Your task to perform on an android device: See recent photos Image 0: 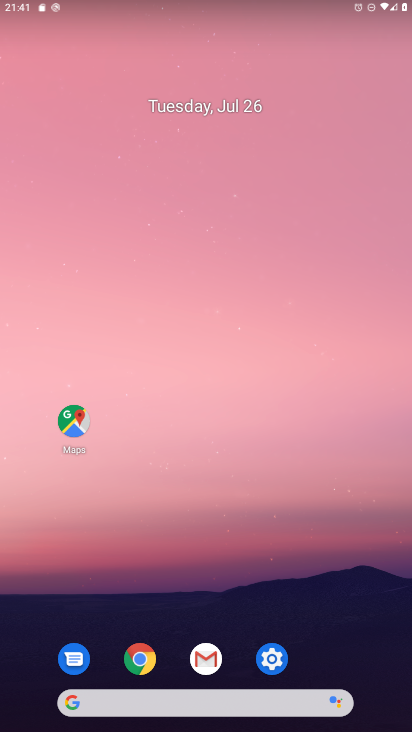
Step 0: drag from (254, 715) to (314, 279)
Your task to perform on an android device: See recent photos Image 1: 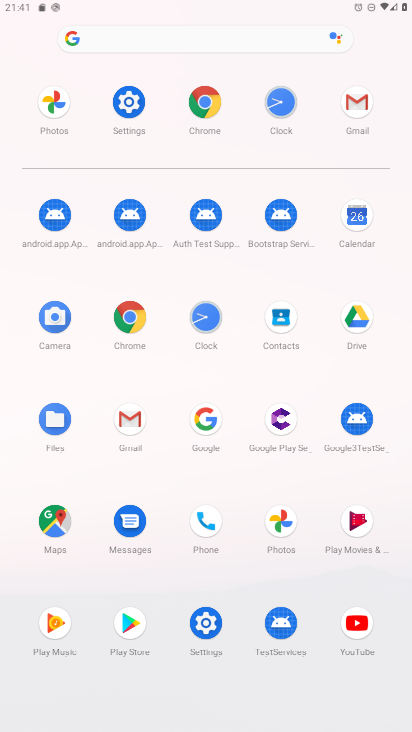
Step 1: click (280, 525)
Your task to perform on an android device: See recent photos Image 2: 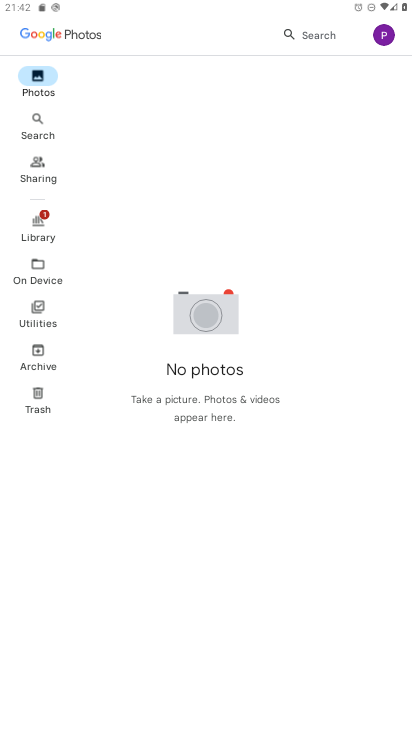
Step 2: task complete